Your task to perform on an android device: turn notification dots on Image 0: 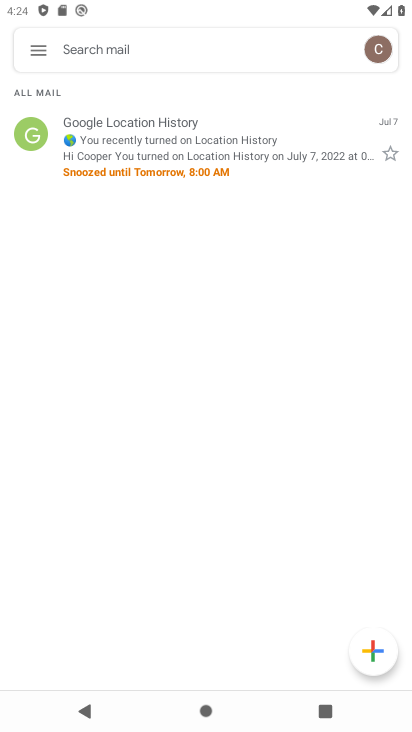
Step 0: press home button
Your task to perform on an android device: turn notification dots on Image 1: 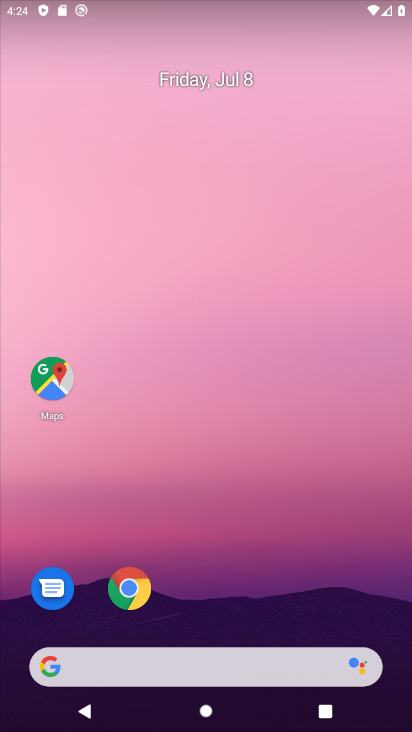
Step 1: drag from (271, 621) to (210, 5)
Your task to perform on an android device: turn notification dots on Image 2: 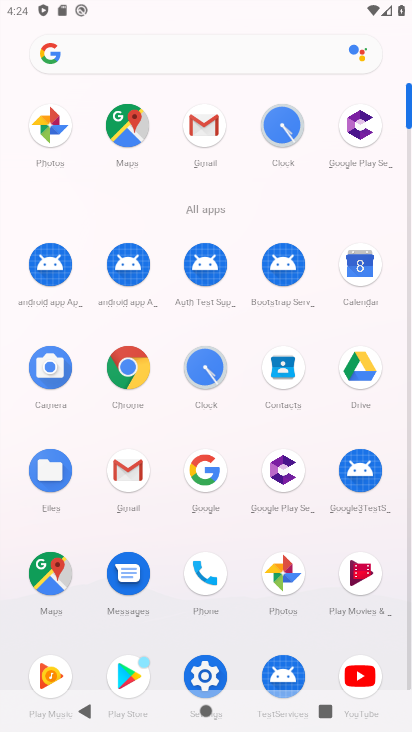
Step 2: drag from (185, 603) to (160, 264)
Your task to perform on an android device: turn notification dots on Image 3: 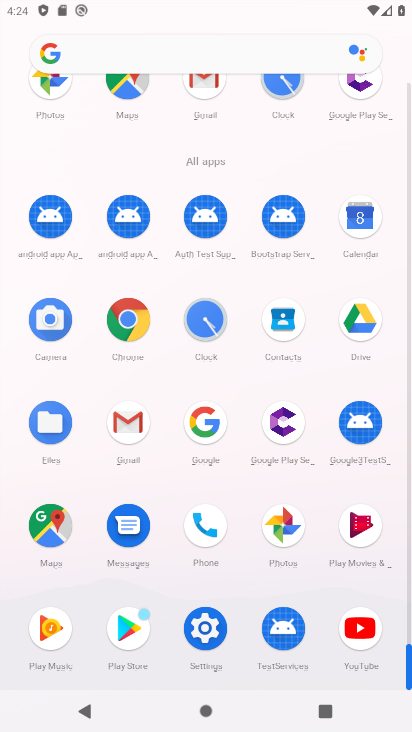
Step 3: click (212, 608)
Your task to perform on an android device: turn notification dots on Image 4: 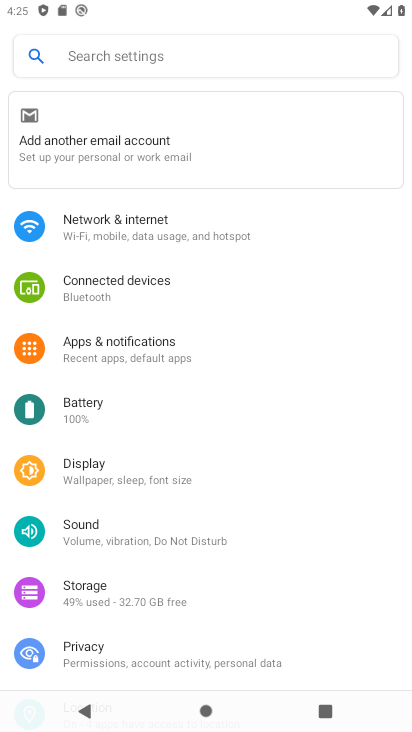
Step 4: click (151, 57)
Your task to perform on an android device: turn notification dots on Image 5: 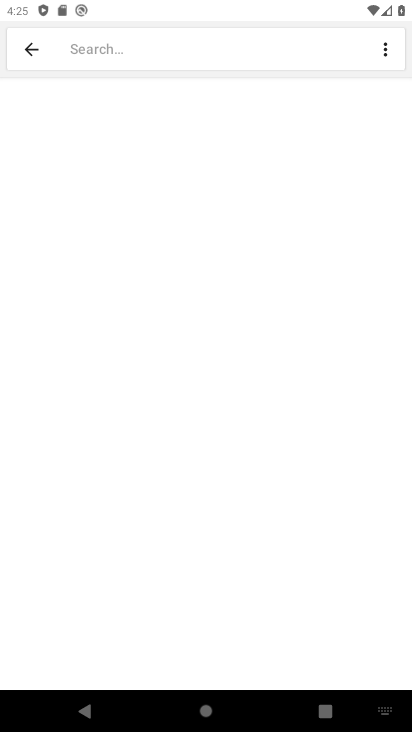
Step 5: type "dots"
Your task to perform on an android device: turn notification dots on Image 6: 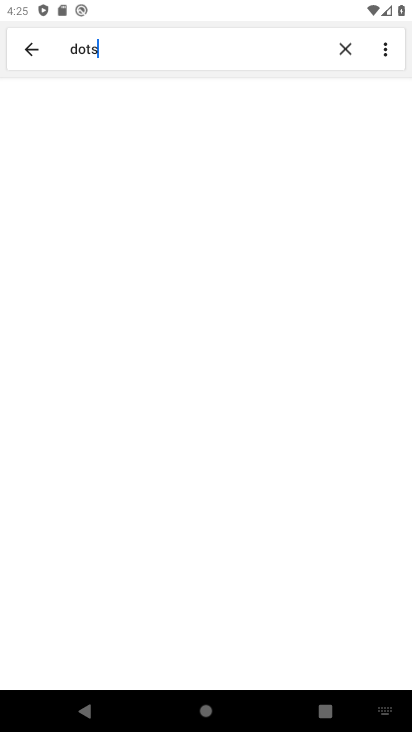
Step 6: type ""
Your task to perform on an android device: turn notification dots on Image 7: 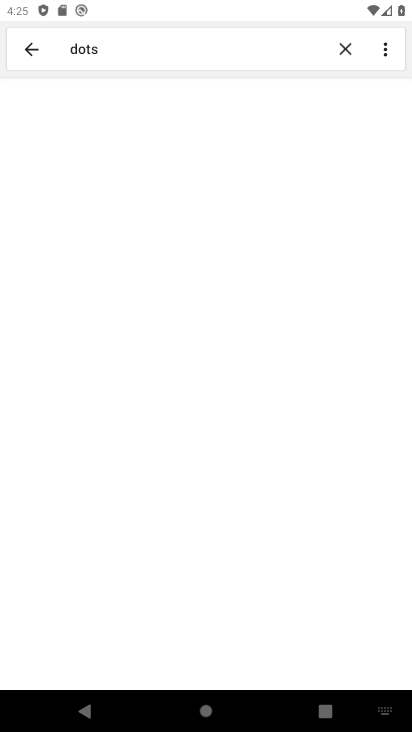
Step 7: press enter
Your task to perform on an android device: turn notification dots on Image 8: 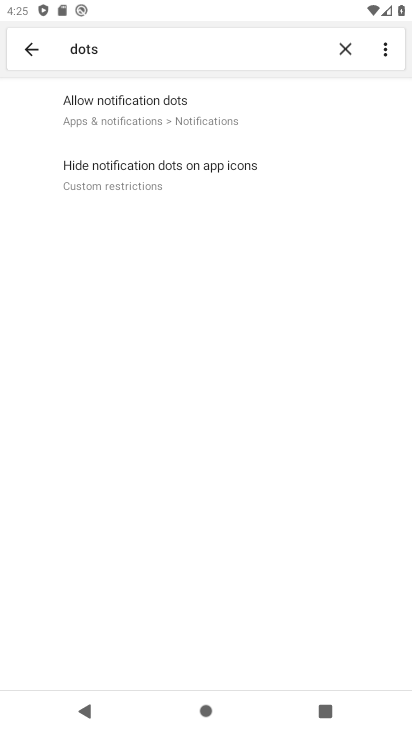
Step 8: click (142, 114)
Your task to perform on an android device: turn notification dots on Image 9: 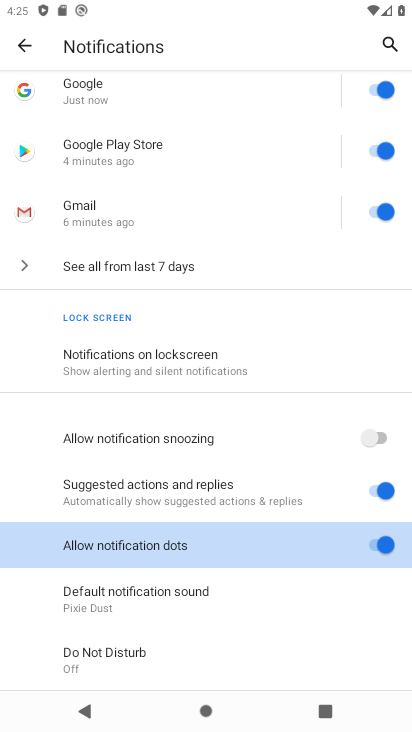
Step 9: task complete